Your task to perform on an android device: change your default location settings in chrome Image 0: 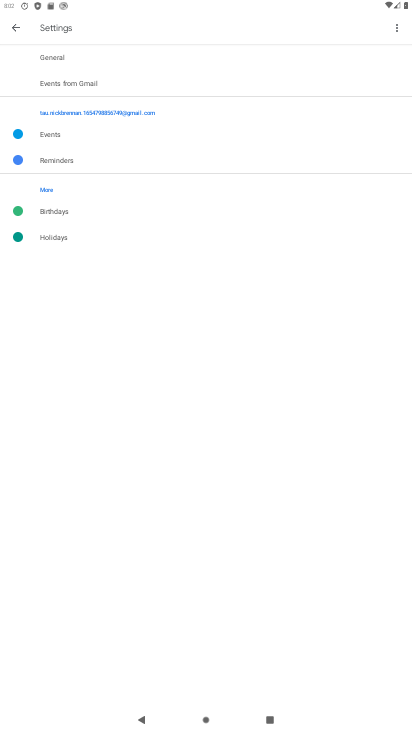
Step 0: press home button
Your task to perform on an android device: change your default location settings in chrome Image 1: 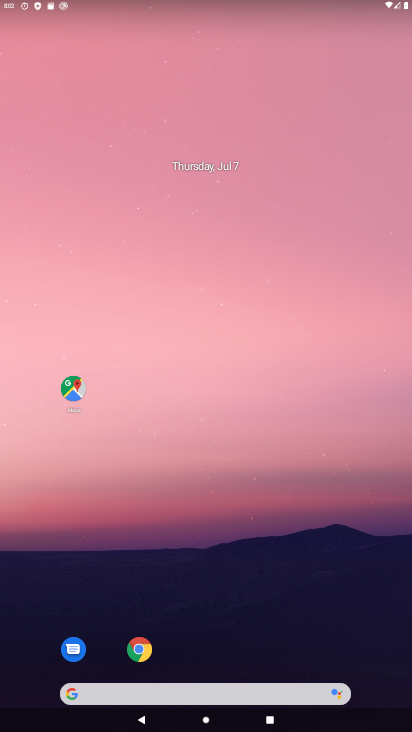
Step 1: drag from (211, 640) to (266, 106)
Your task to perform on an android device: change your default location settings in chrome Image 2: 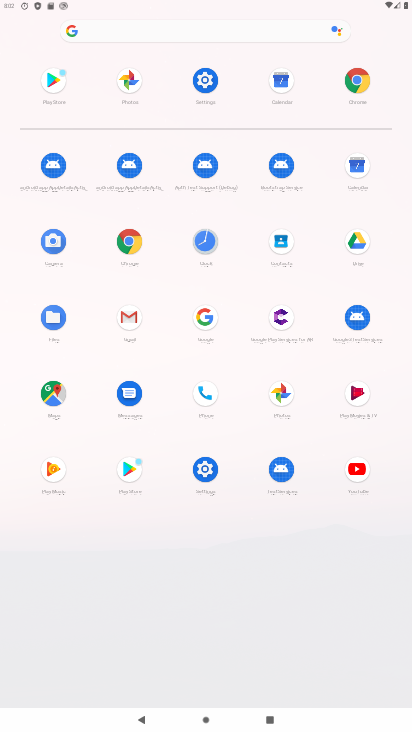
Step 2: click (129, 234)
Your task to perform on an android device: change your default location settings in chrome Image 3: 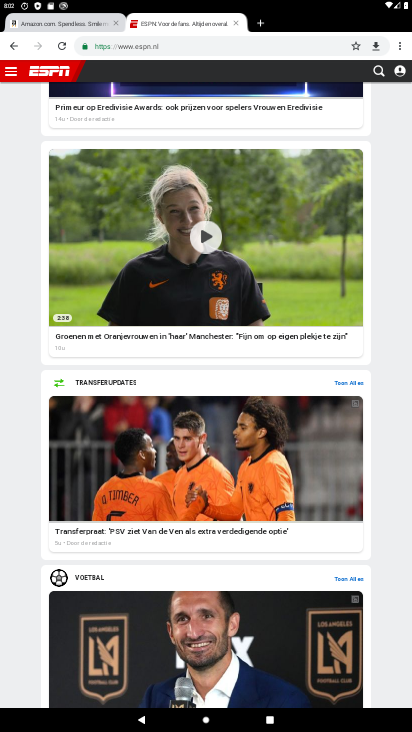
Step 3: click (259, 18)
Your task to perform on an android device: change your default location settings in chrome Image 4: 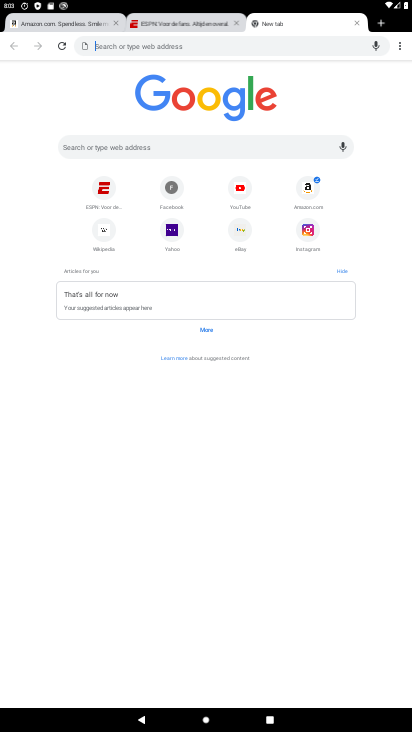
Step 4: click (398, 46)
Your task to perform on an android device: change your default location settings in chrome Image 5: 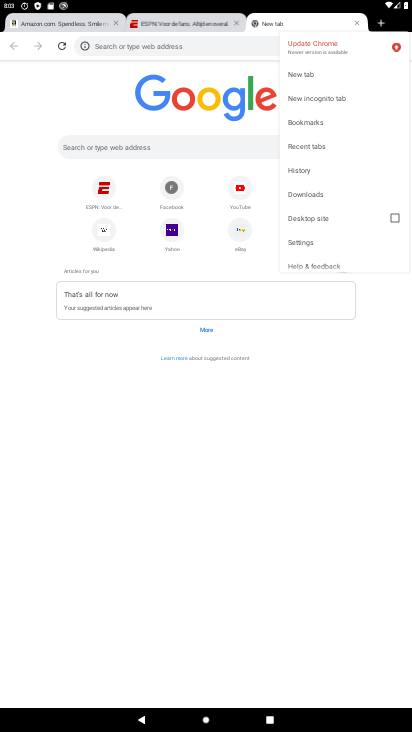
Step 5: click (321, 244)
Your task to perform on an android device: change your default location settings in chrome Image 6: 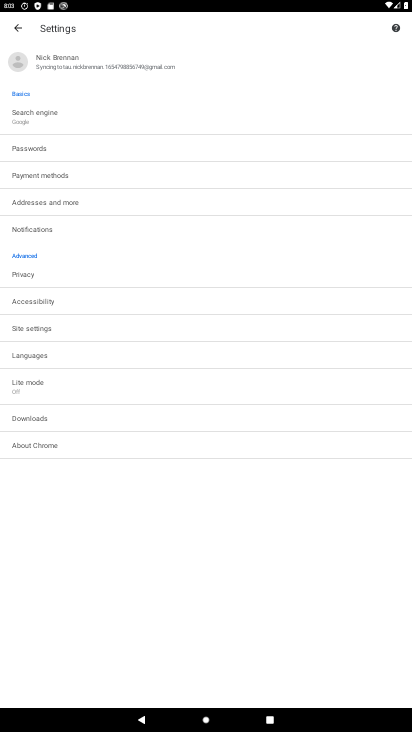
Step 6: click (61, 323)
Your task to perform on an android device: change your default location settings in chrome Image 7: 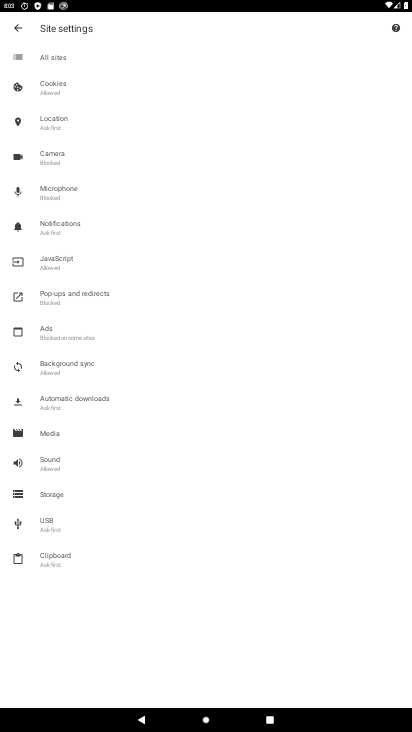
Step 7: click (75, 123)
Your task to perform on an android device: change your default location settings in chrome Image 8: 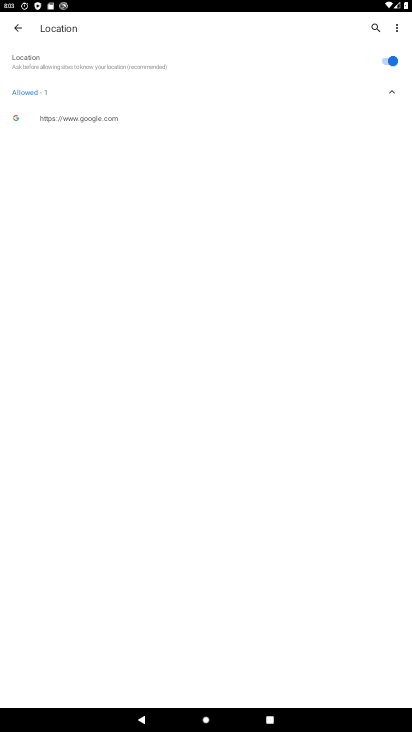
Step 8: click (385, 55)
Your task to perform on an android device: change your default location settings in chrome Image 9: 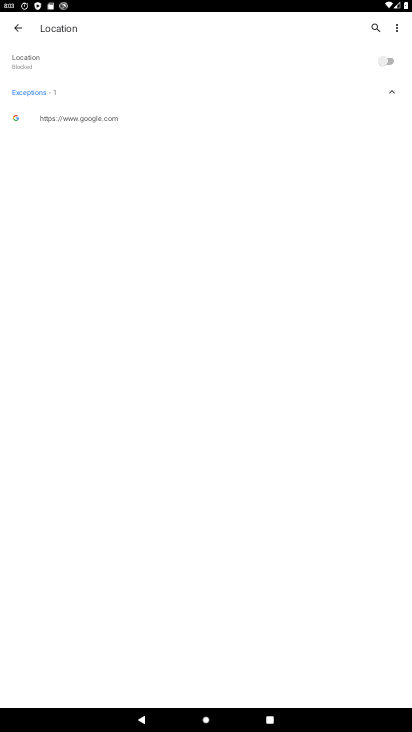
Step 9: task complete